Your task to perform on an android device: Open eBay Image 0: 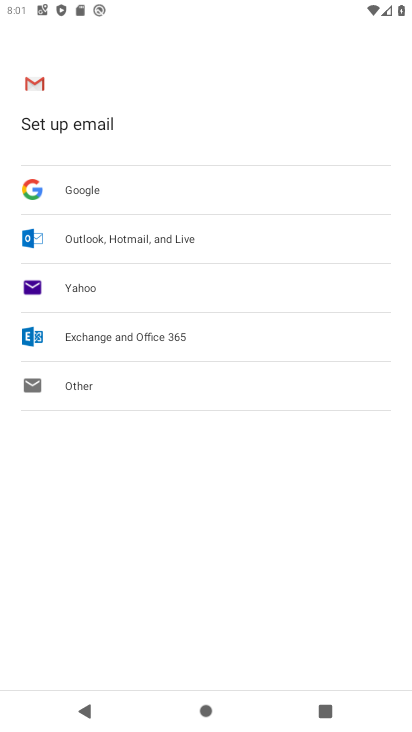
Step 0: press home button
Your task to perform on an android device: Open eBay Image 1: 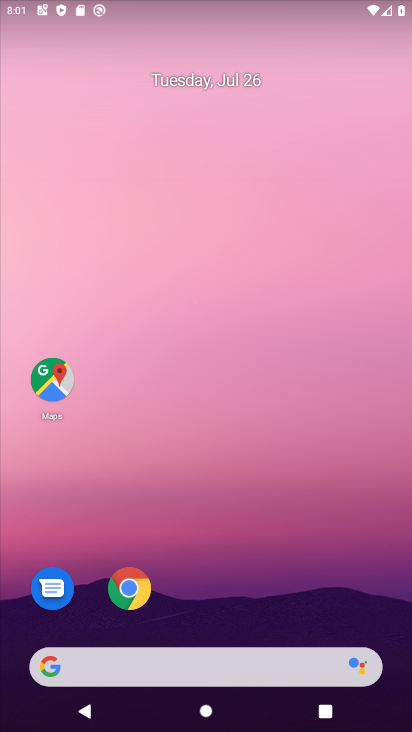
Step 1: click (117, 584)
Your task to perform on an android device: Open eBay Image 2: 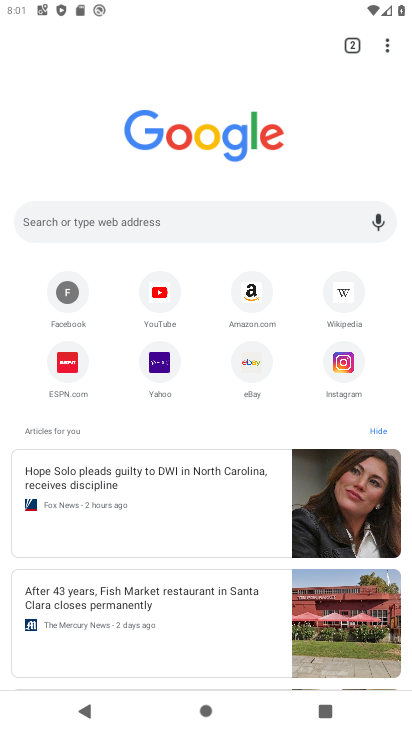
Step 2: click (252, 367)
Your task to perform on an android device: Open eBay Image 3: 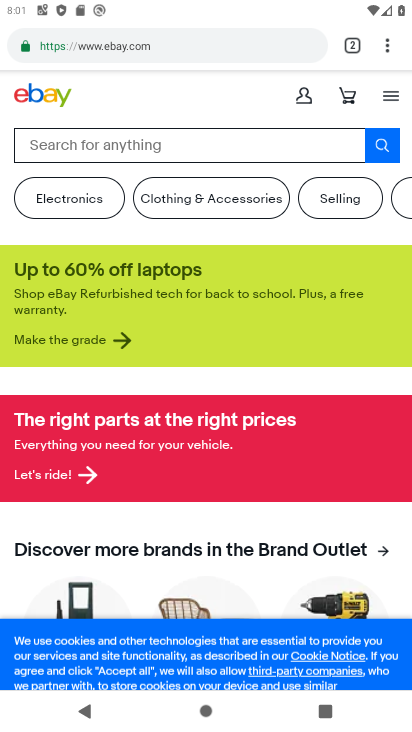
Step 3: task complete